Your task to perform on an android device: Open battery settings Image 0: 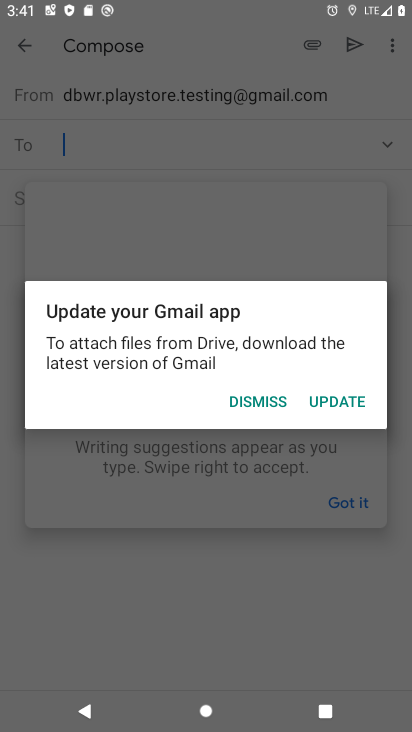
Step 0: press home button
Your task to perform on an android device: Open battery settings Image 1: 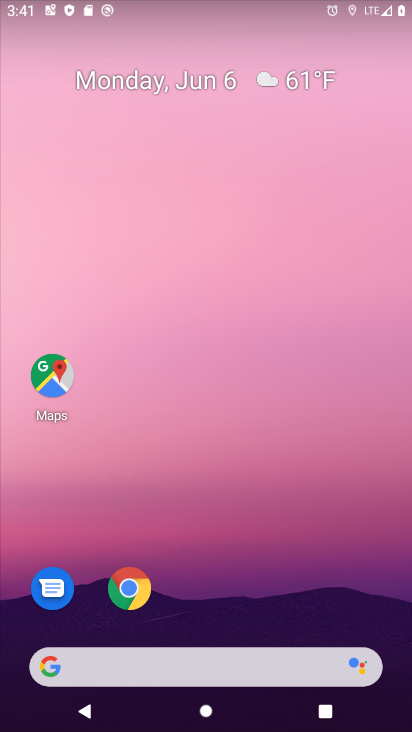
Step 1: drag from (246, 421) to (236, 268)
Your task to perform on an android device: Open battery settings Image 2: 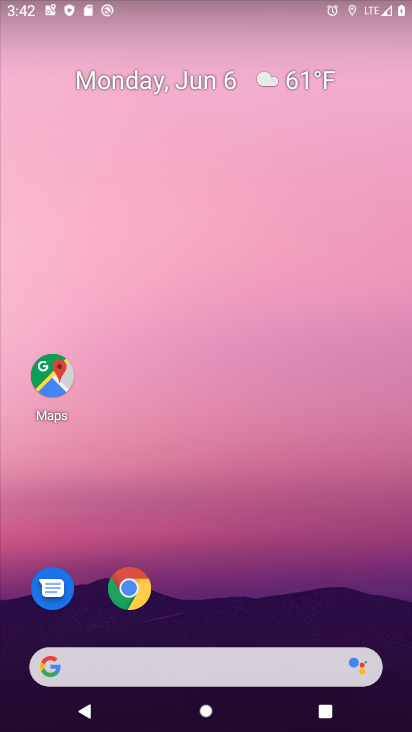
Step 2: drag from (249, 611) to (184, 148)
Your task to perform on an android device: Open battery settings Image 3: 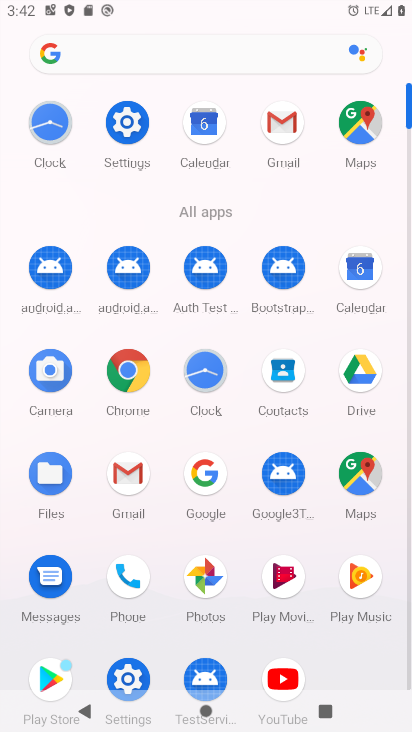
Step 3: click (130, 124)
Your task to perform on an android device: Open battery settings Image 4: 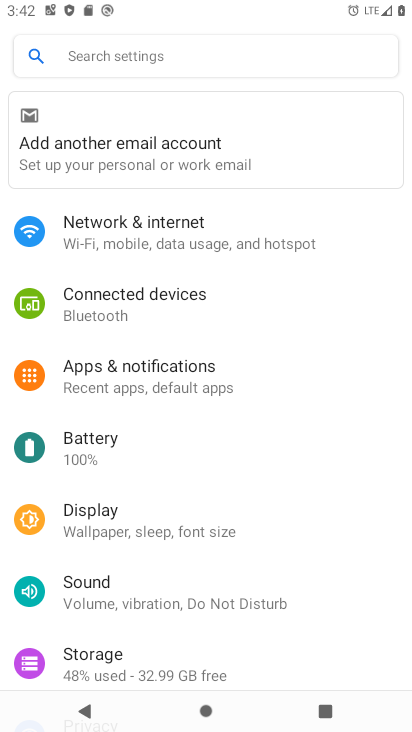
Step 4: click (177, 453)
Your task to perform on an android device: Open battery settings Image 5: 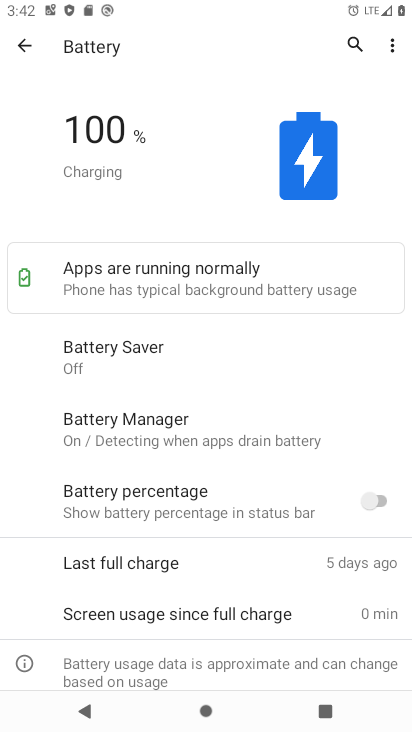
Step 5: task complete